Your task to perform on an android device: Show me productivity apps on the Play Store Image 0: 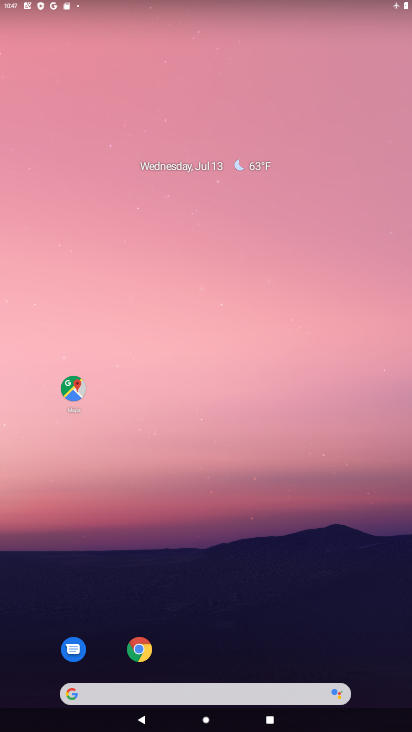
Step 0: drag from (253, 616) to (253, 197)
Your task to perform on an android device: Show me productivity apps on the Play Store Image 1: 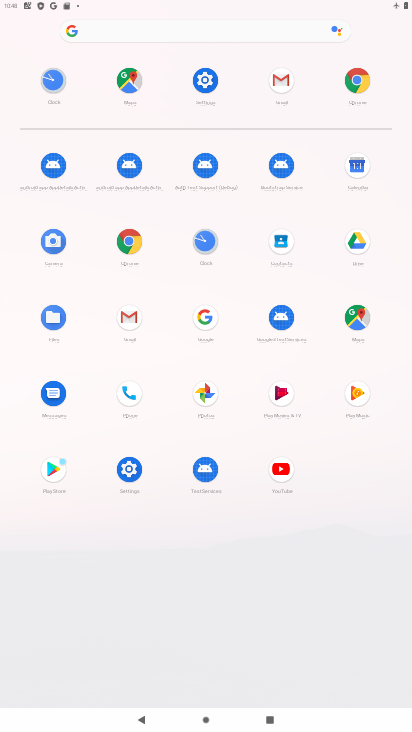
Step 1: click (61, 466)
Your task to perform on an android device: Show me productivity apps on the Play Store Image 2: 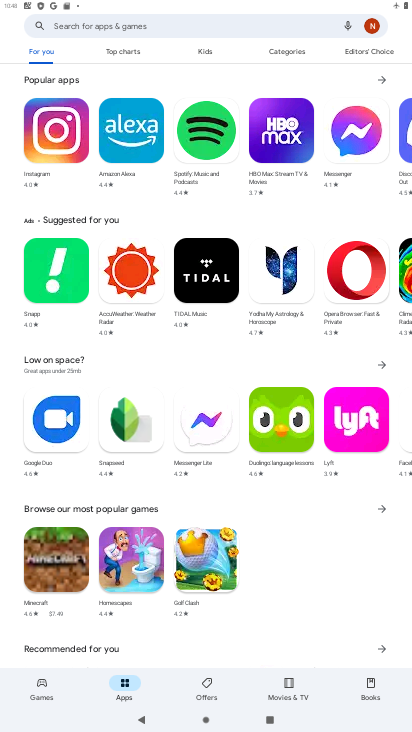
Step 2: task complete